Your task to perform on an android device: delete the emails in spam in the gmail app Image 0: 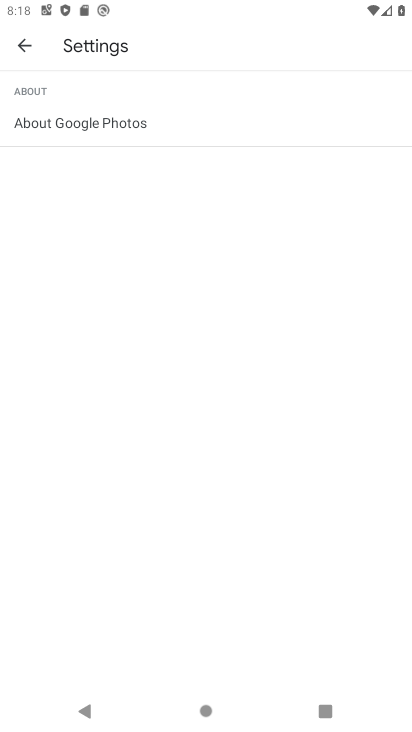
Step 0: press home button
Your task to perform on an android device: delete the emails in spam in the gmail app Image 1: 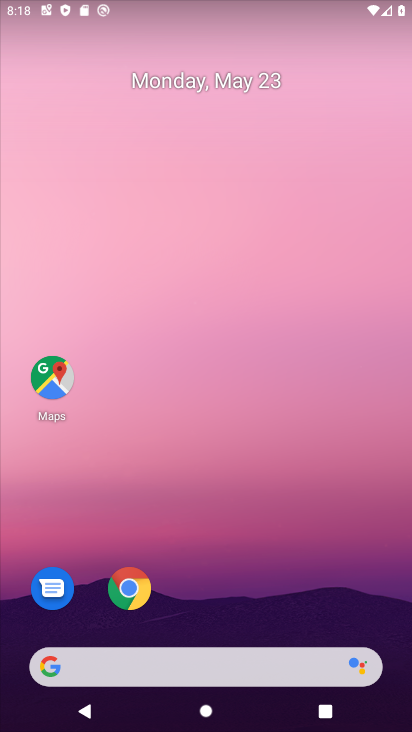
Step 1: drag from (389, 699) to (386, 124)
Your task to perform on an android device: delete the emails in spam in the gmail app Image 2: 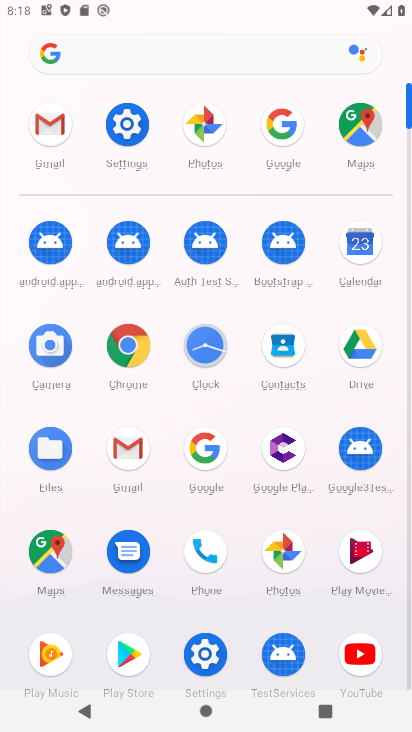
Step 2: click (134, 452)
Your task to perform on an android device: delete the emails in spam in the gmail app Image 3: 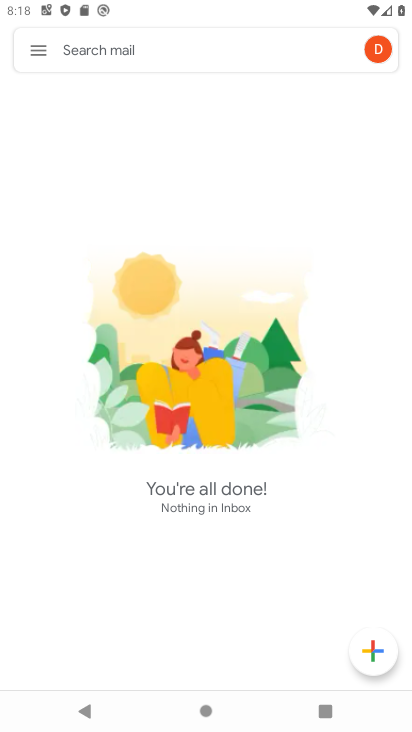
Step 3: click (43, 45)
Your task to perform on an android device: delete the emails in spam in the gmail app Image 4: 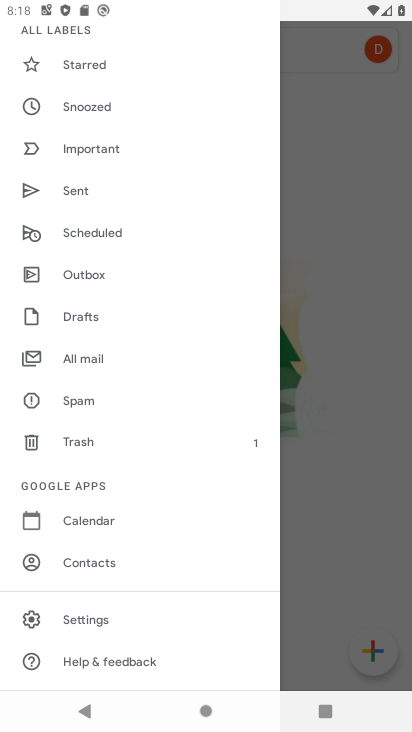
Step 4: click (78, 397)
Your task to perform on an android device: delete the emails in spam in the gmail app Image 5: 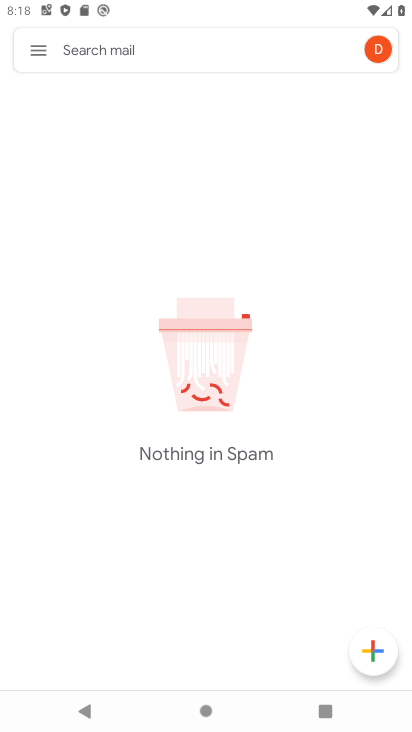
Step 5: task complete